Your task to perform on an android device: set the stopwatch Image 0: 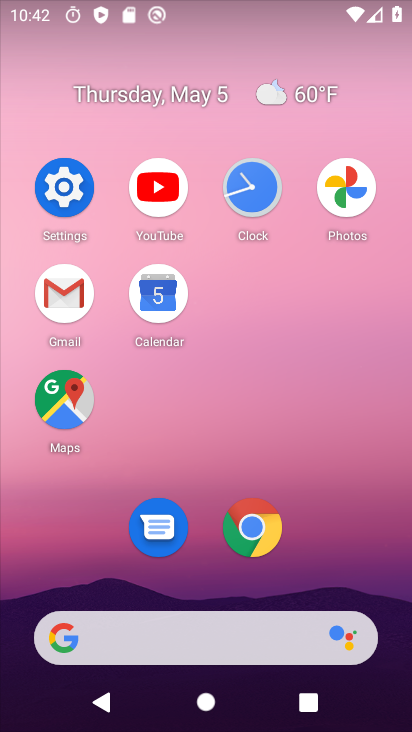
Step 0: click (228, 193)
Your task to perform on an android device: set the stopwatch Image 1: 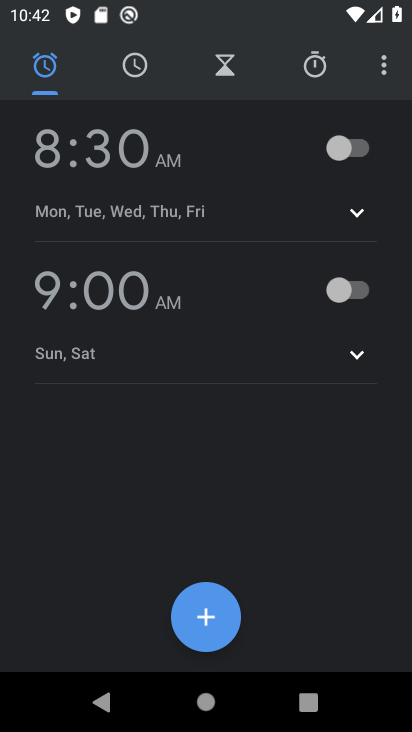
Step 1: click (317, 82)
Your task to perform on an android device: set the stopwatch Image 2: 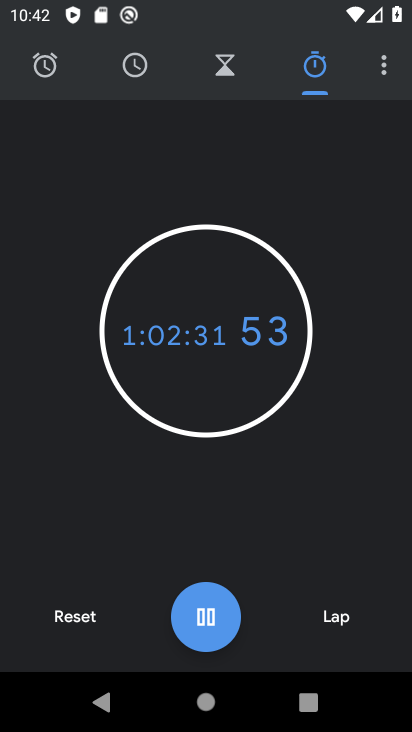
Step 2: click (79, 612)
Your task to perform on an android device: set the stopwatch Image 3: 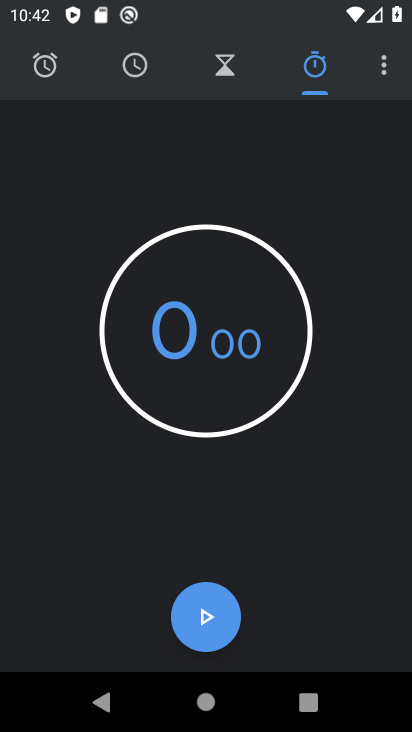
Step 3: click (216, 617)
Your task to perform on an android device: set the stopwatch Image 4: 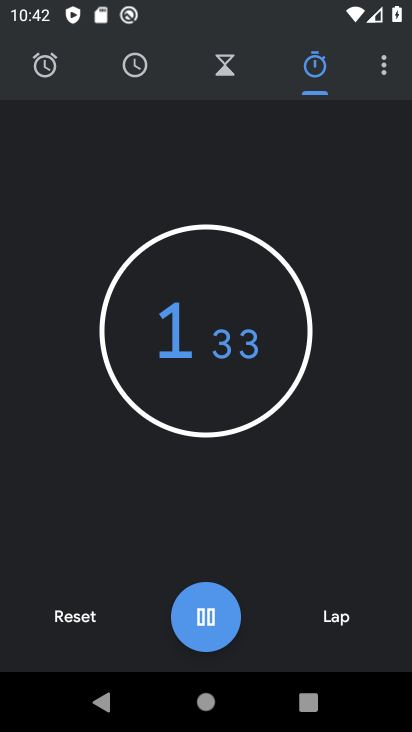
Step 4: task complete